Your task to perform on an android device: Go to Google maps Image 0: 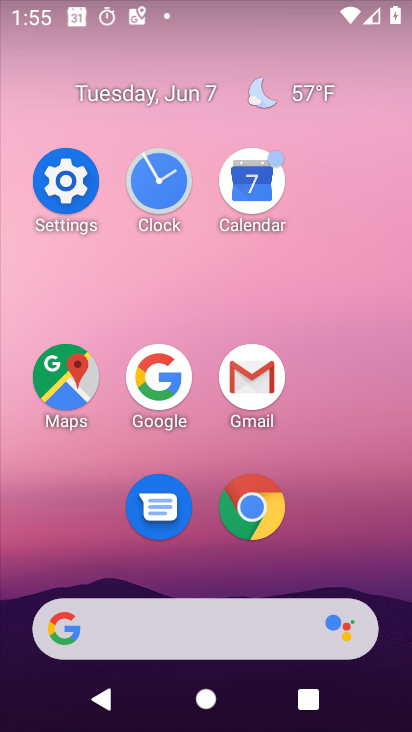
Step 0: click (88, 373)
Your task to perform on an android device: Go to Google maps Image 1: 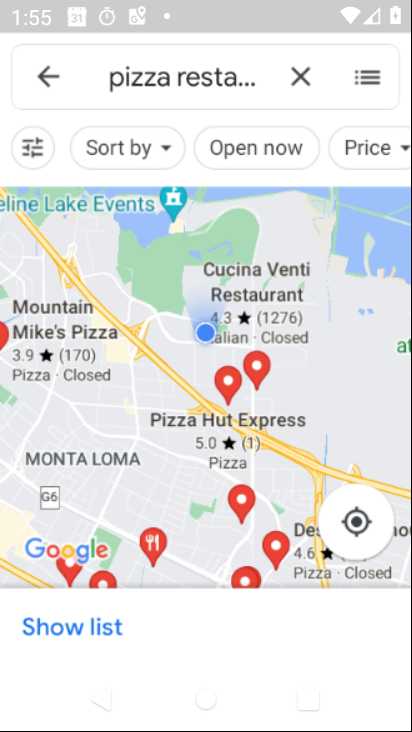
Step 1: task complete